Your task to perform on an android device: turn off translation in the chrome app Image 0: 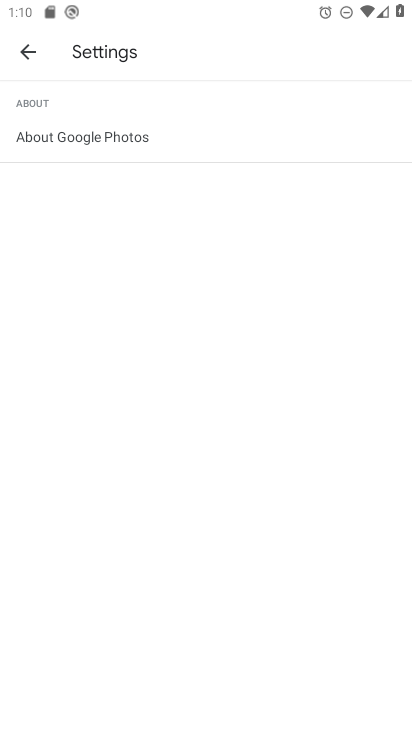
Step 0: press home button
Your task to perform on an android device: turn off translation in the chrome app Image 1: 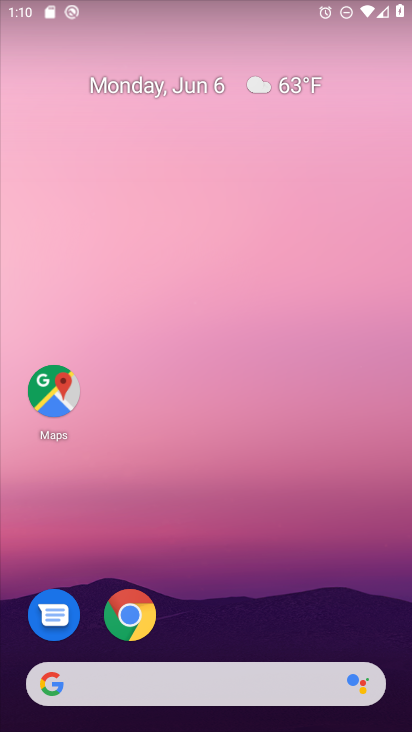
Step 1: click (130, 615)
Your task to perform on an android device: turn off translation in the chrome app Image 2: 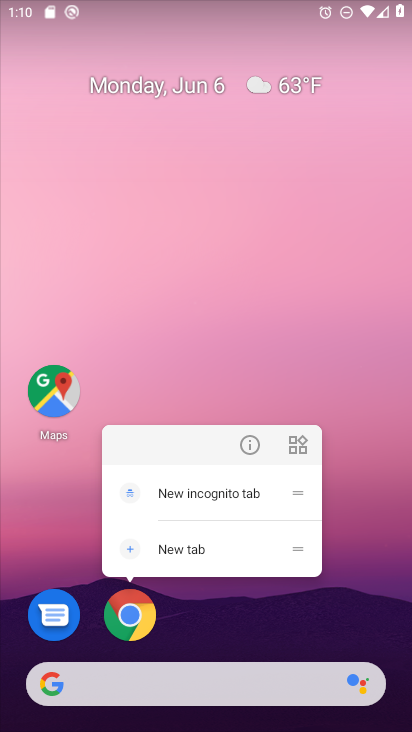
Step 2: click (130, 615)
Your task to perform on an android device: turn off translation in the chrome app Image 3: 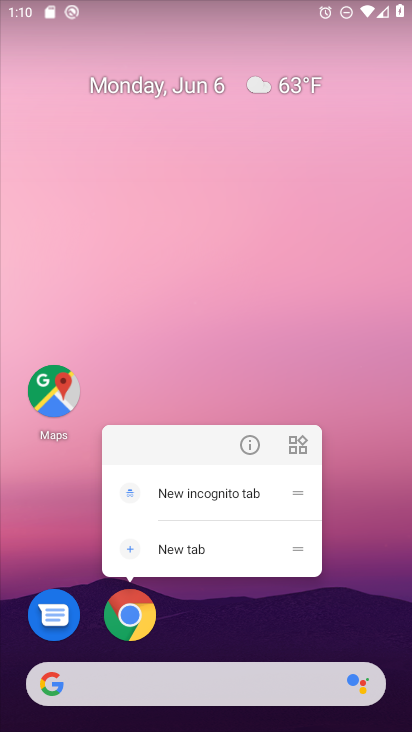
Step 3: click (133, 614)
Your task to perform on an android device: turn off translation in the chrome app Image 4: 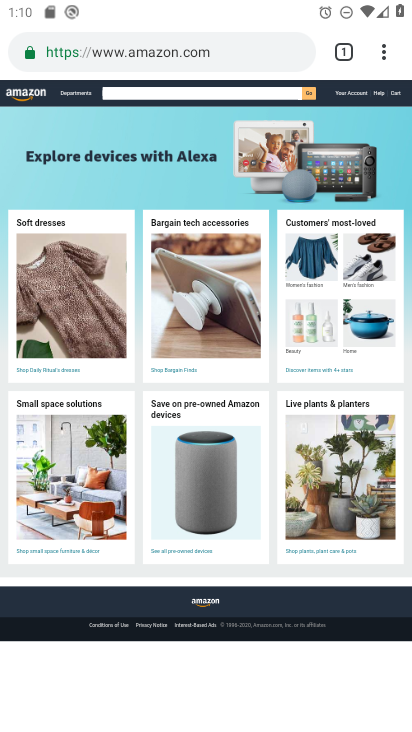
Step 4: click (375, 34)
Your task to perform on an android device: turn off translation in the chrome app Image 5: 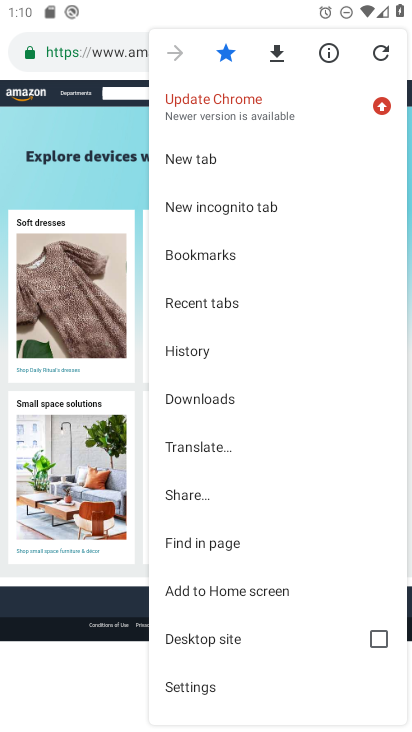
Step 5: click (217, 686)
Your task to perform on an android device: turn off translation in the chrome app Image 6: 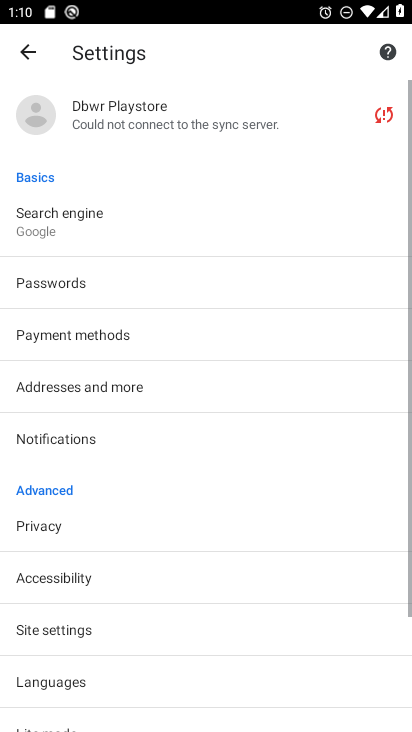
Step 6: drag from (177, 654) to (229, 171)
Your task to perform on an android device: turn off translation in the chrome app Image 7: 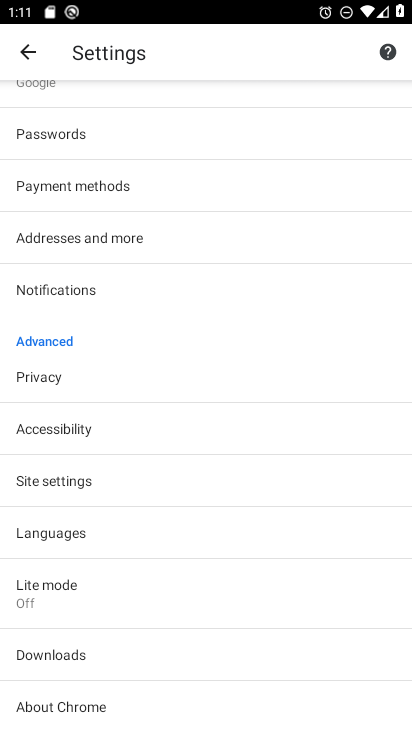
Step 7: click (90, 534)
Your task to perform on an android device: turn off translation in the chrome app Image 8: 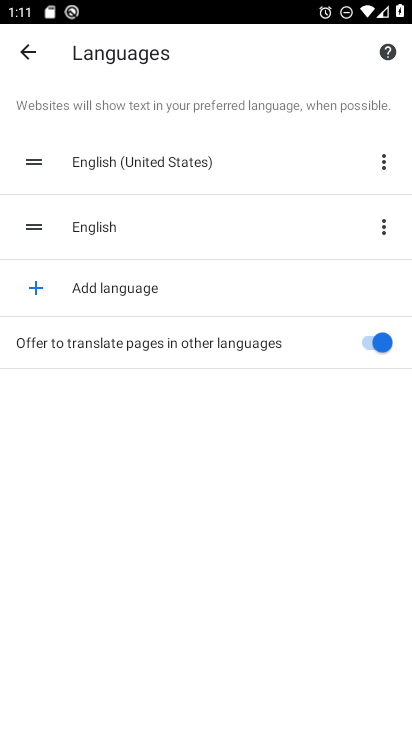
Step 8: click (363, 348)
Your task to perform on an android device: turn off translation in the chrome app Image 9: 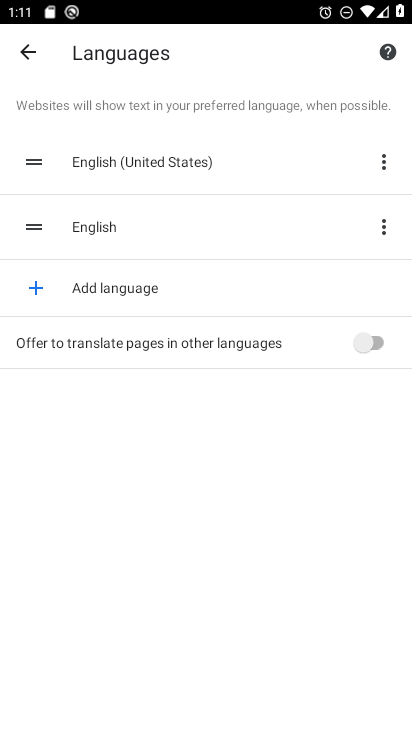
Step 9: task complete